Your task to perform on an android device: turn off priority inbox in the gmail app Image 0: 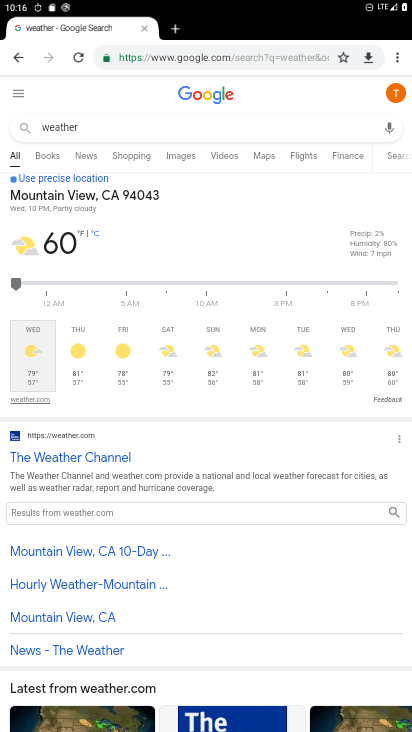
Step 0: press home button
Your task to perform on an android device: turn off priority inbox in the gmail app Image 1: 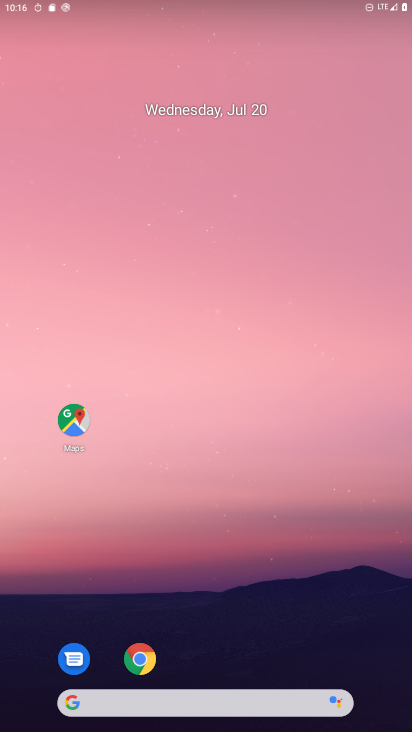
Step 1: drag from (307, 645) to (222, 127)
Your task to perform on an android device: turn off priority inbox in the gmail app Image 2: 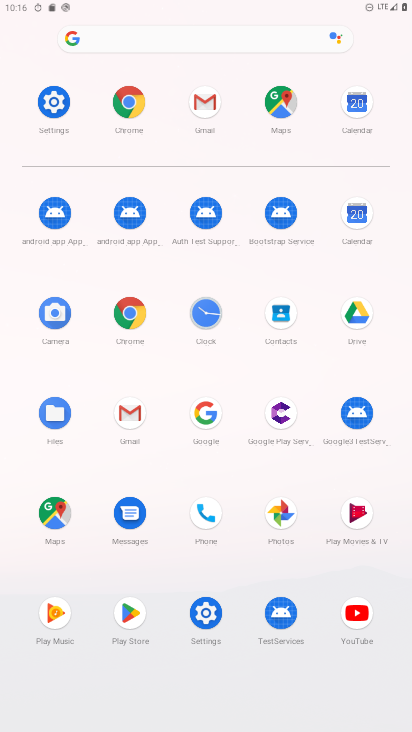
Step 2: click (53, 102)
Your task to perform on an android device: turn off priority inbox in the gmail app Image 3: 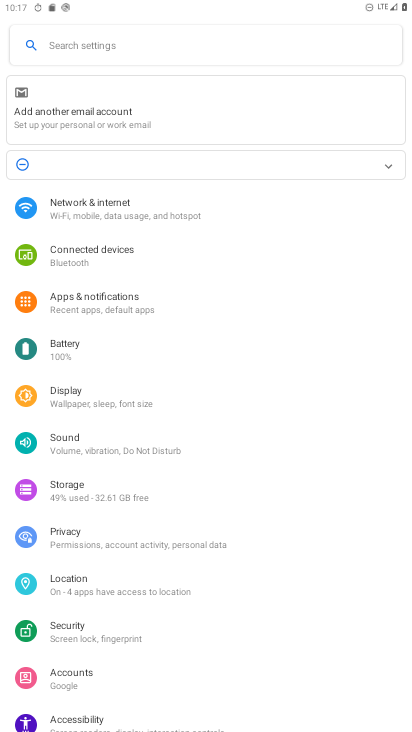
Step 3: press home button
Your task to perform on an android device: turn off priority inbox in the gmail app Image 4: 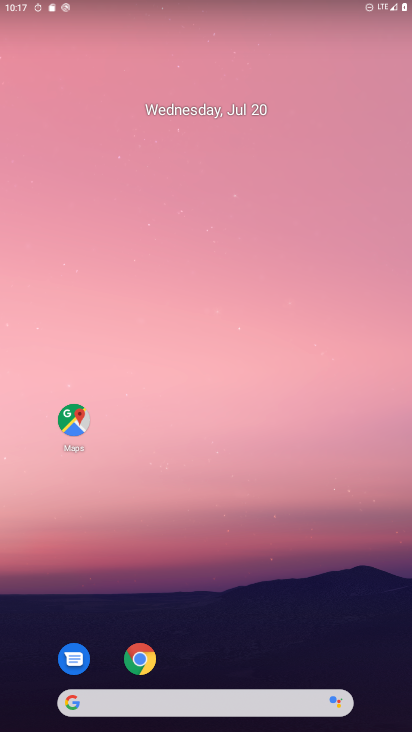
Step 4: drag from (272, 639) to (195, 103)
Your task to perform on an android device: turn off priority inbox in the gmail app Image 5: 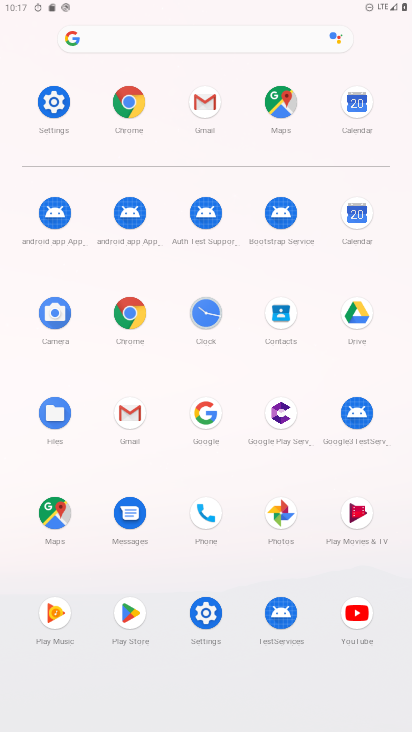
Step 5: click (210, 89)
Your task to perform on an android device: turn off priority inbox in the gmail app Image 6: 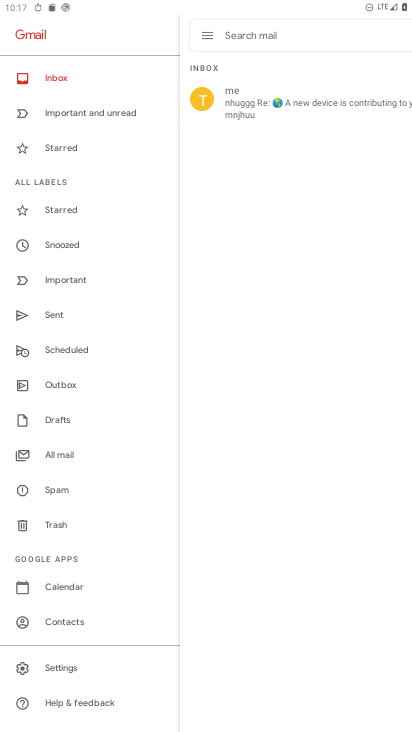
Step 6: click (76, 671)
Your task to perform on an android device: turn off priority inbox in the gmail app Image 7: 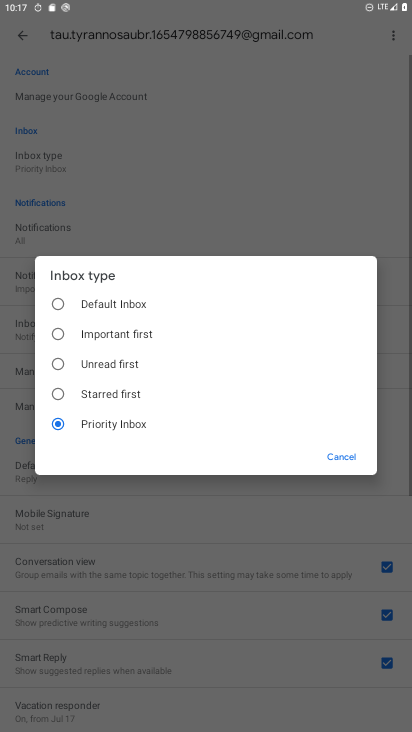
Step 7: click (158, 211)
Your task to perform on an android device: turn off priority inbox in the gmail app Image 8: 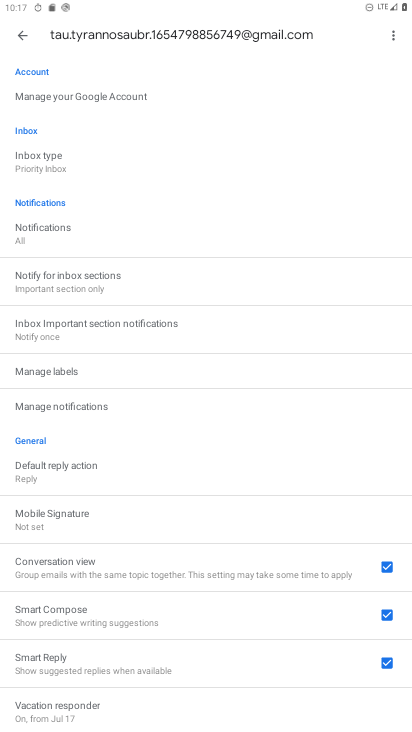
Step 8: click (46, 158)
Your task to perform on an android device: turn off priority inbox in the gmail app Image 9: 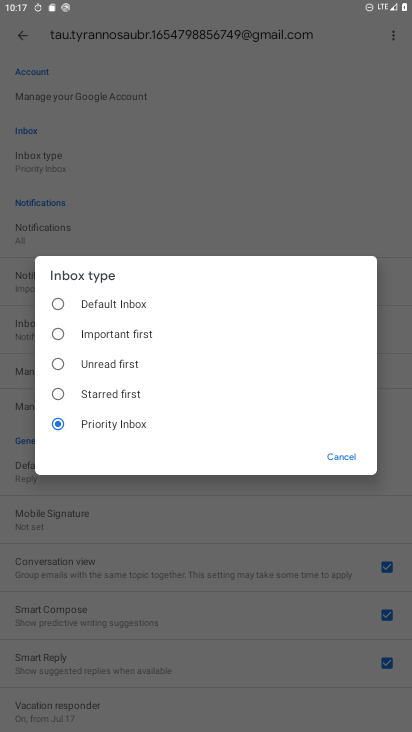
Step 9: task complete